Your task to perform on an android device: turn on the 24-hour format for clock Image 0: 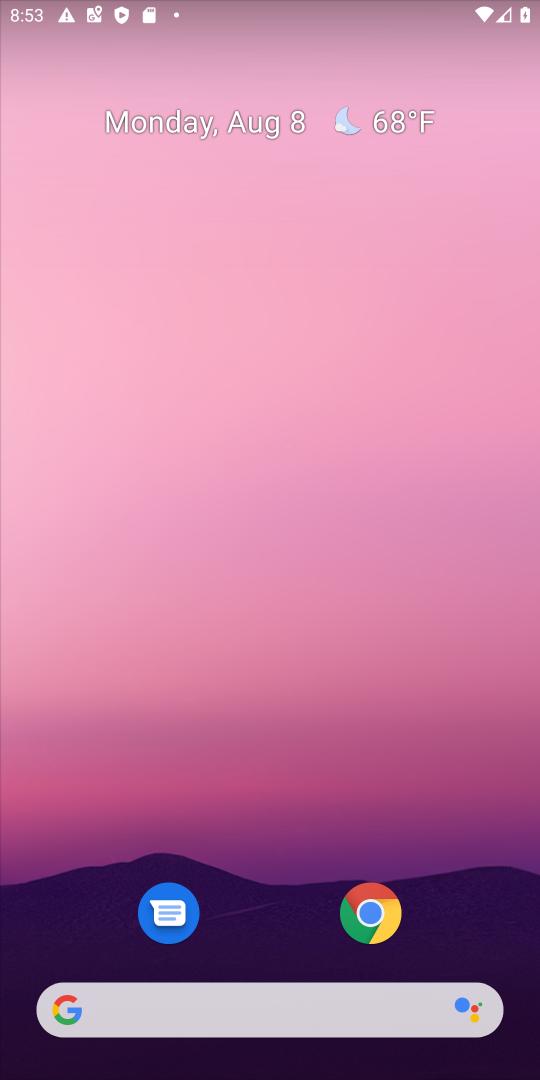
Step 0: drag from (207, 1008) to (274, 98)
Your task to perform on an android device: turn on the 24-hour format for clock Image 1: 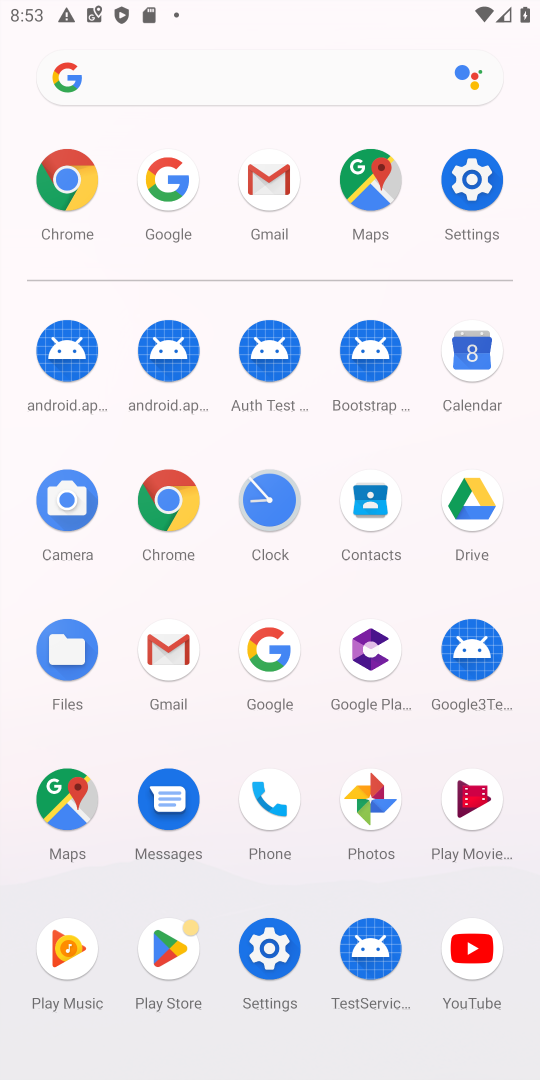
Step 1: click (270, 502)
Your task to perform on an android device: turn on the 24-hour format for clock Image 2: 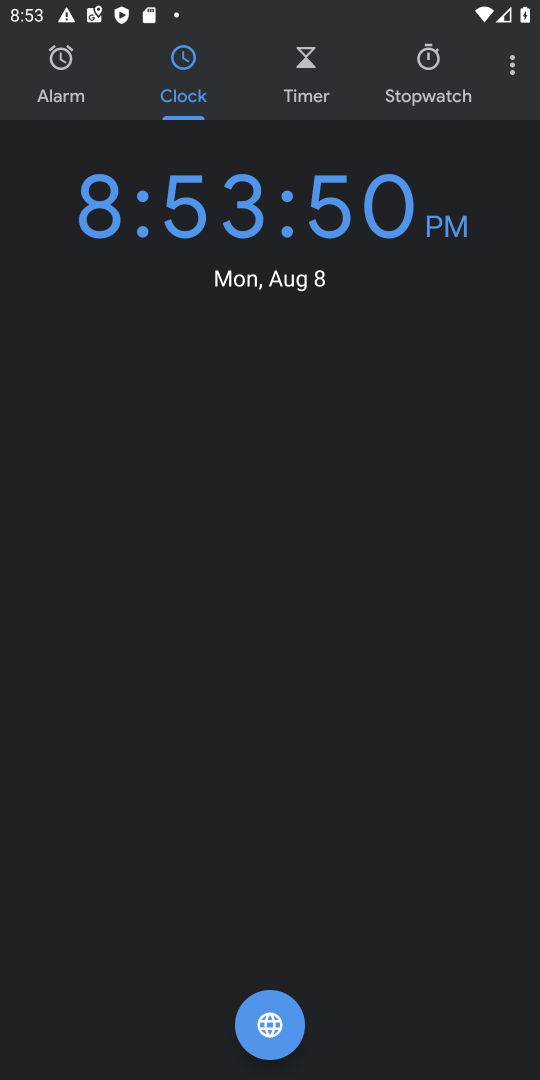
Step 2: click (514, 69)
Your task to perform on an android device: turn on the 24-hour format for clock Image 3: 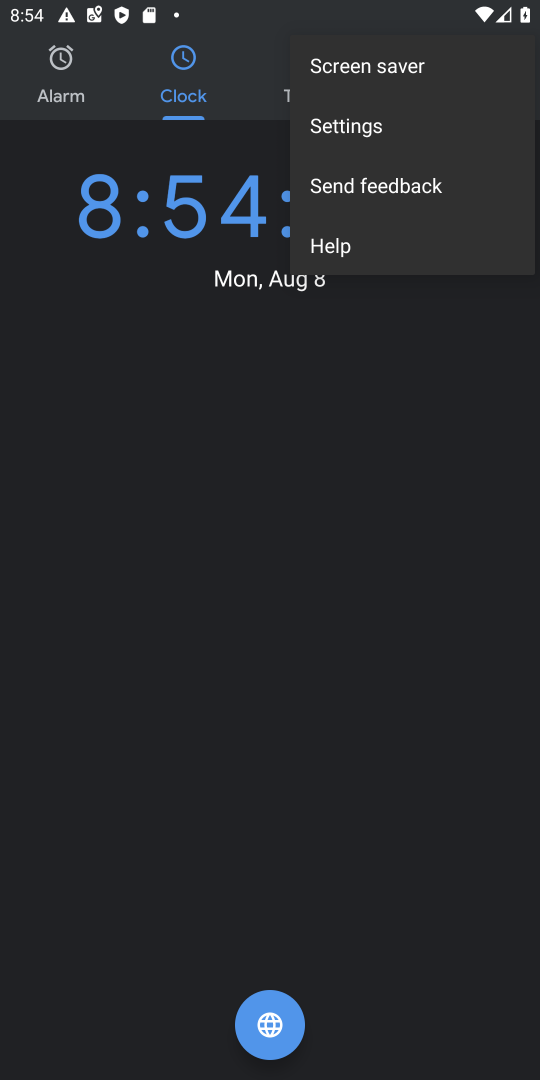
Step 3: click (365, 126)
Your task to perform on an android device: turn on the 24-hour format for clock Image 4: 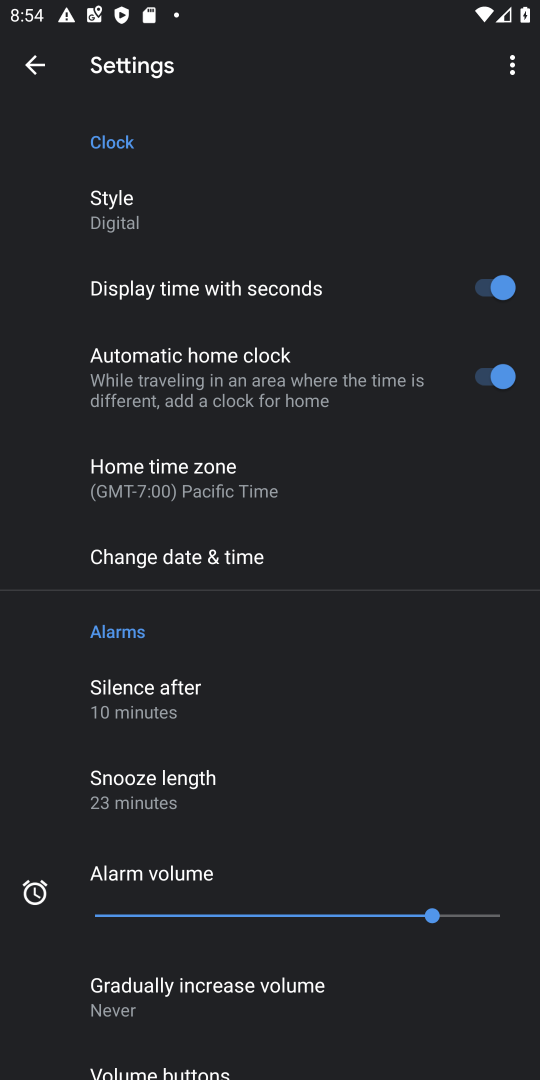
Step 4: click (231, 563)
Your task to perform on an android device: turn on the 24-hour format for clock Image 5: 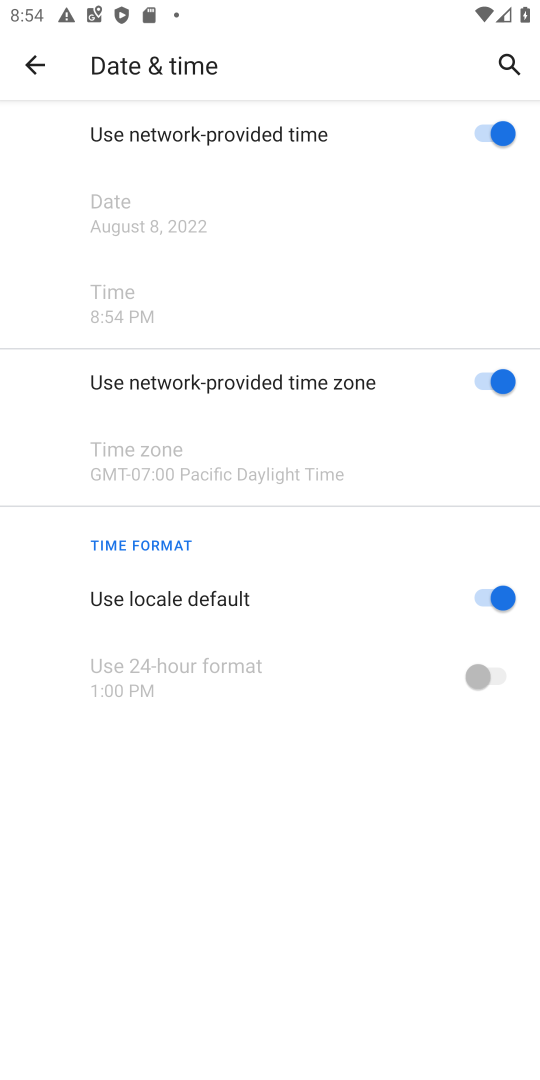
Step 5: click (500, 598)
Your task to perform on an android device: turn on the 24-hour format for clock Image 6: 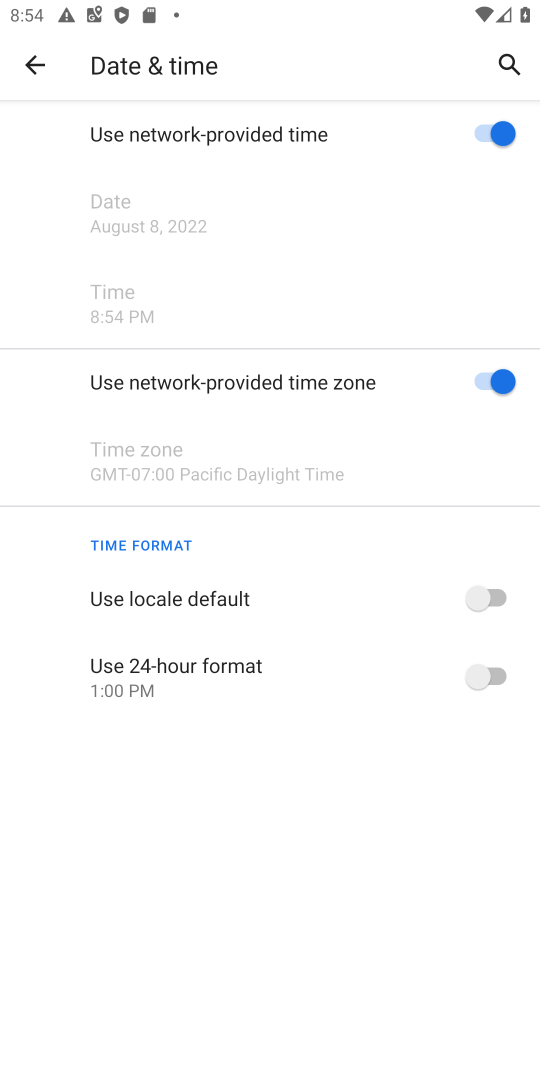
Step 6: click (498, 675)
Your task to perform on an android device: turn on the 24-hour format for clock Image 7: 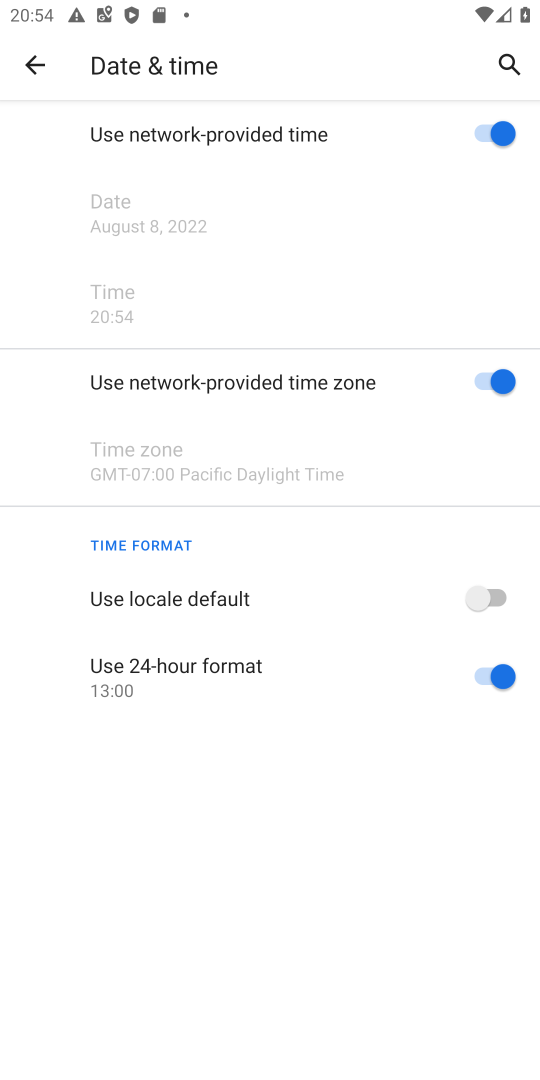
Step 7: task complete